Your task to perform on an android device: turn pop-ups off in chrome Image 0: 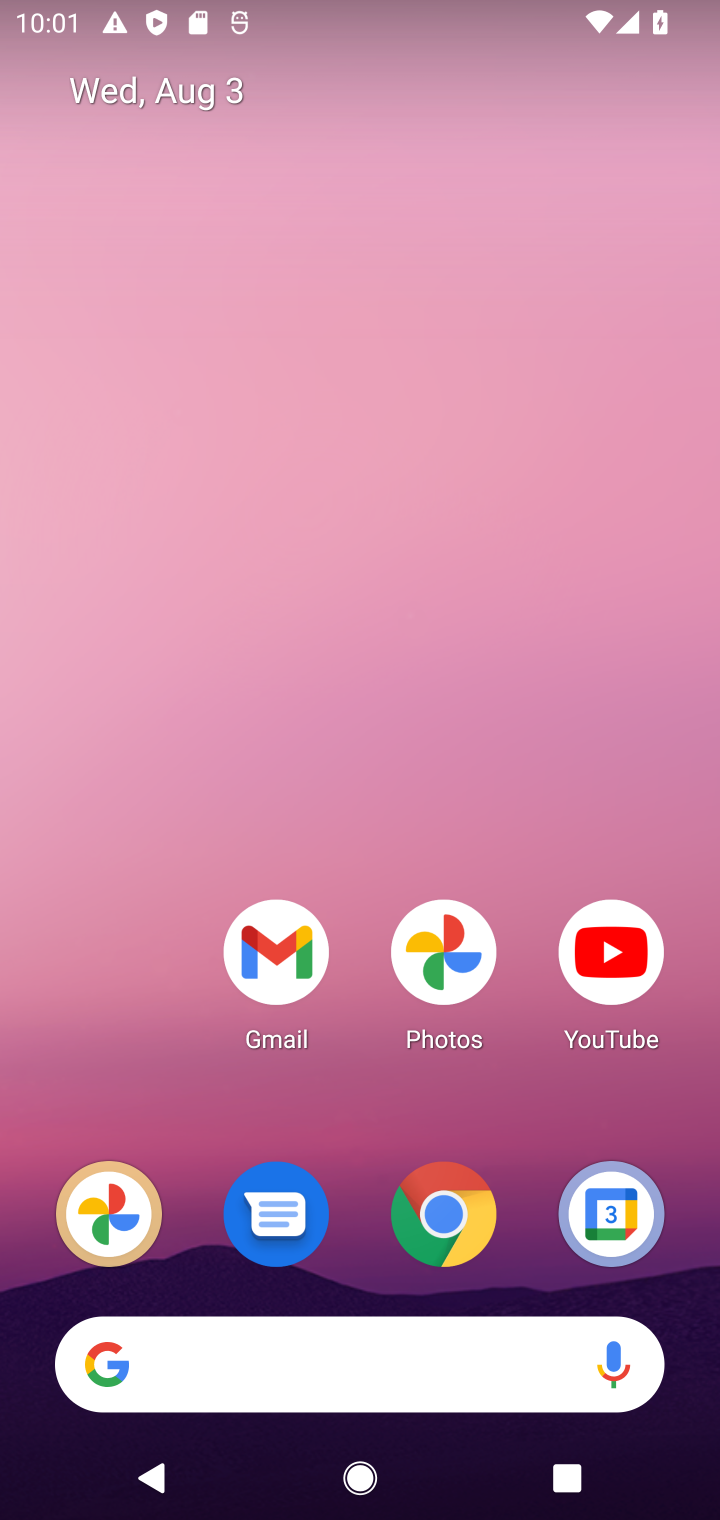
Step 0: press home button
Your task to perform on an android device: turn pop-ups off in chrome Image 1: 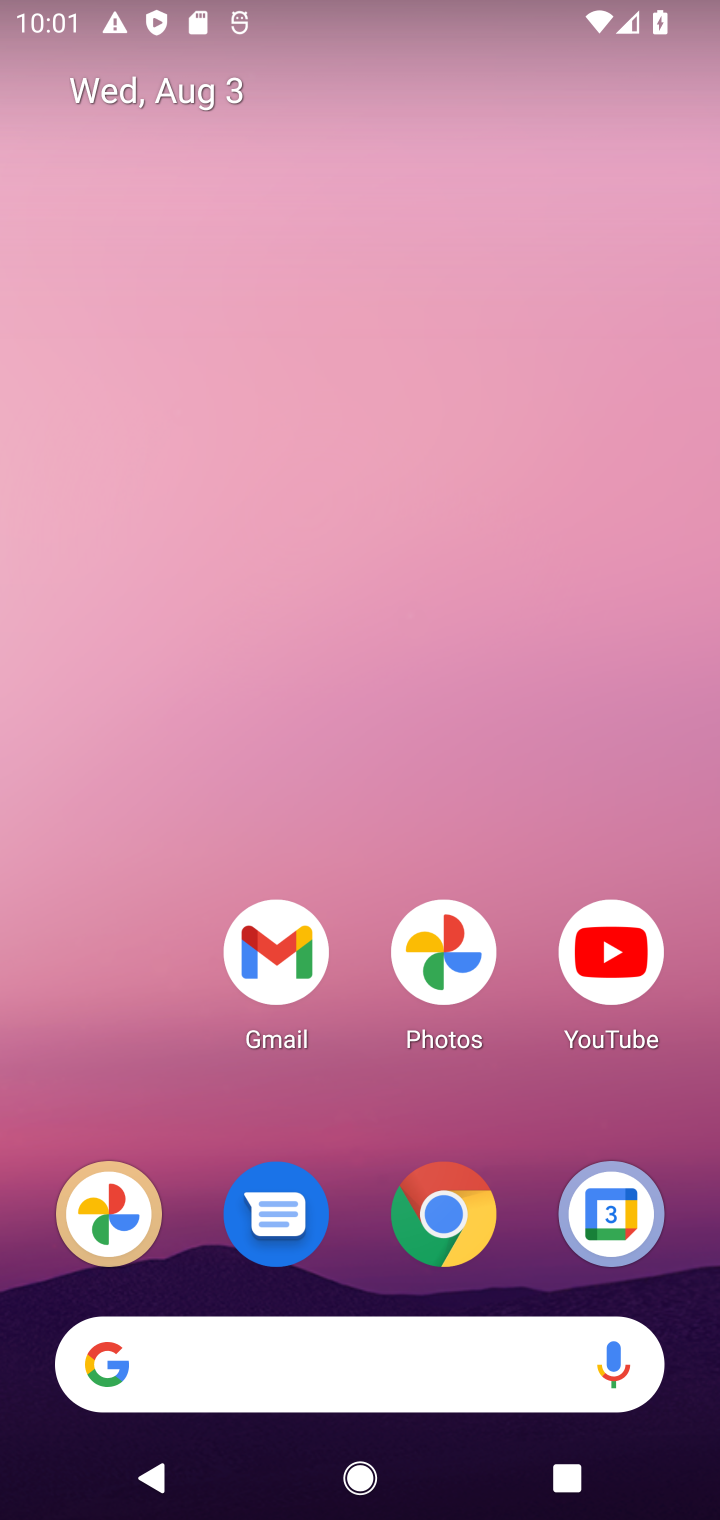
Step 1: drag from (541, 1076) to (558, 414)
Your task to perform on an android device: turn pop-ups off in chrome Image 2: 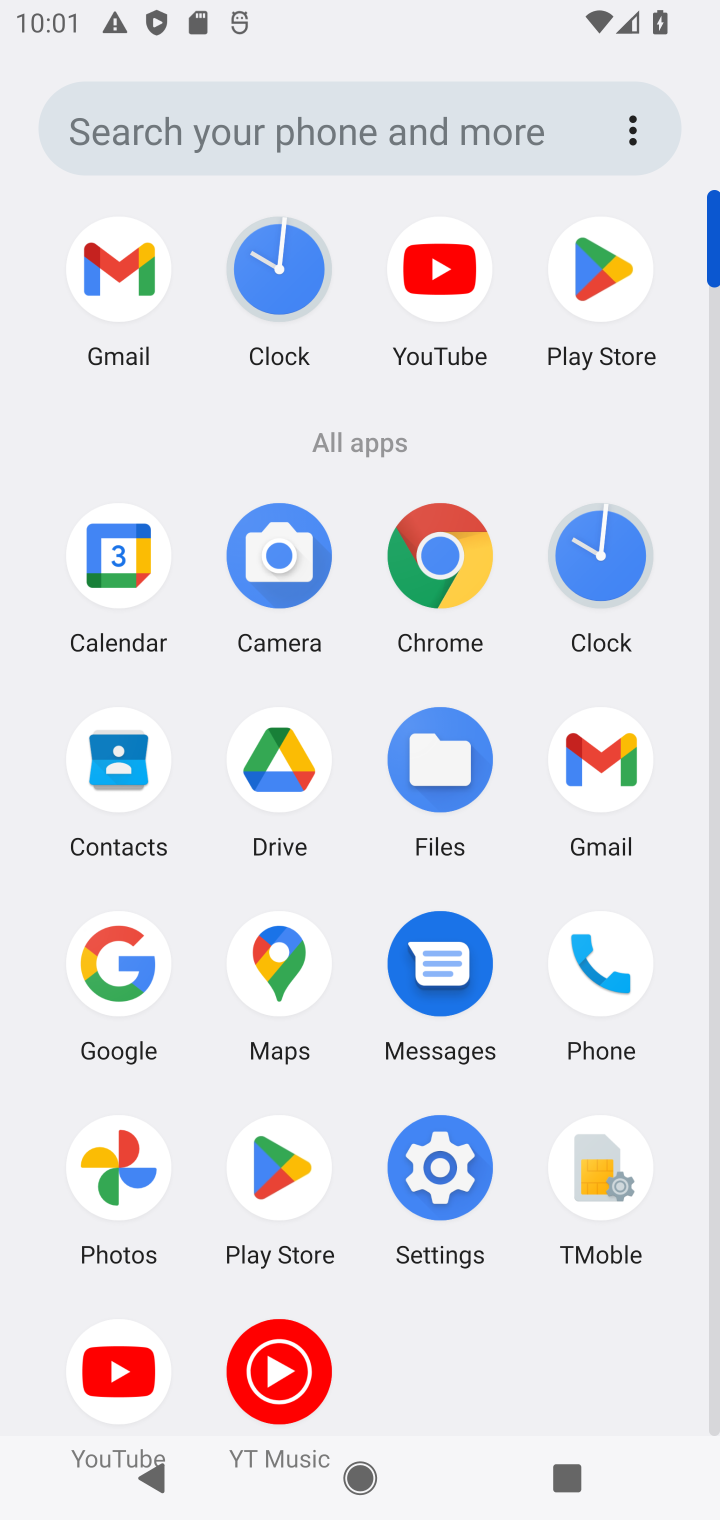
Step 2: drag from (465, 1342) to (469, 923)
Your task to perform on an android device: turn pop-ups off in chrome Image 3: 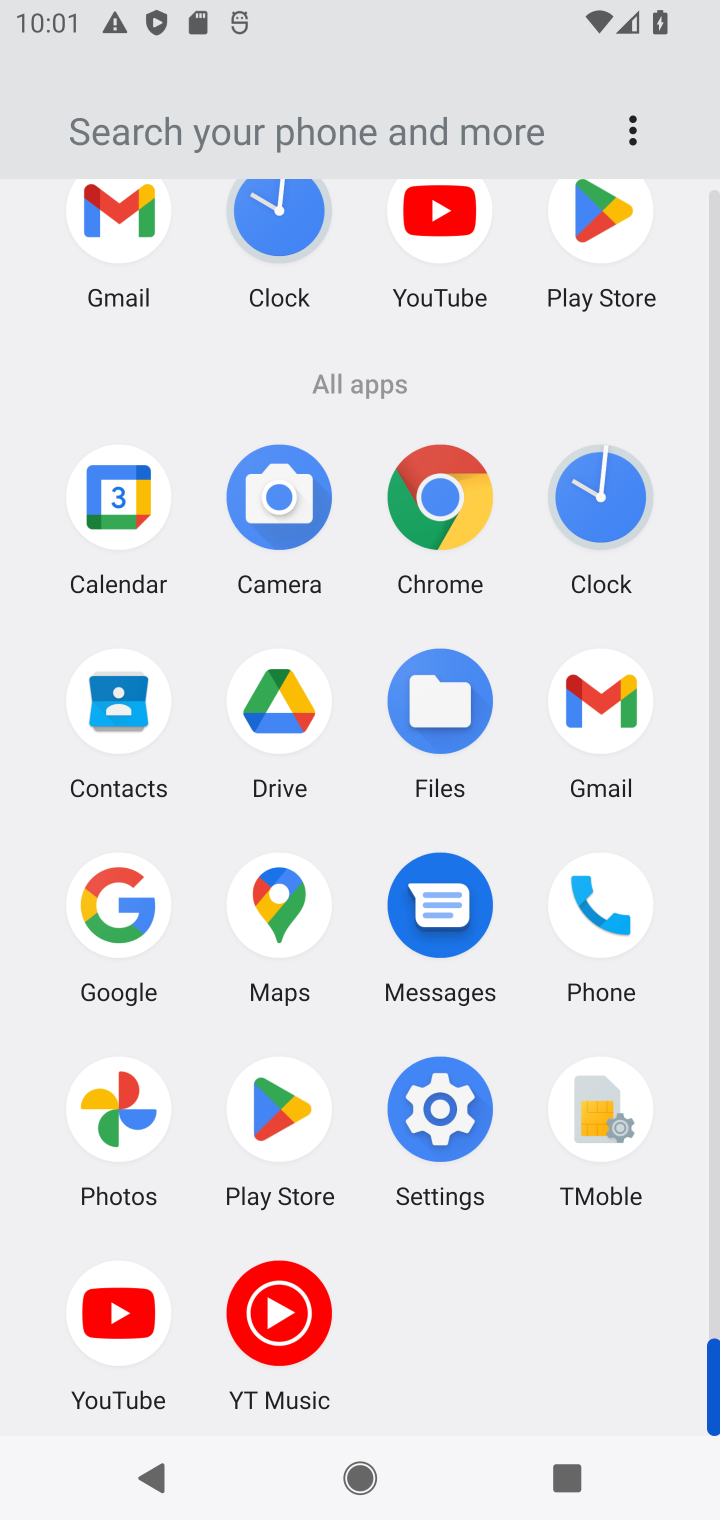
Step 3: click (403, 499)
Your task to perform on an android device: turn pop-ups off in chrome Image 4: 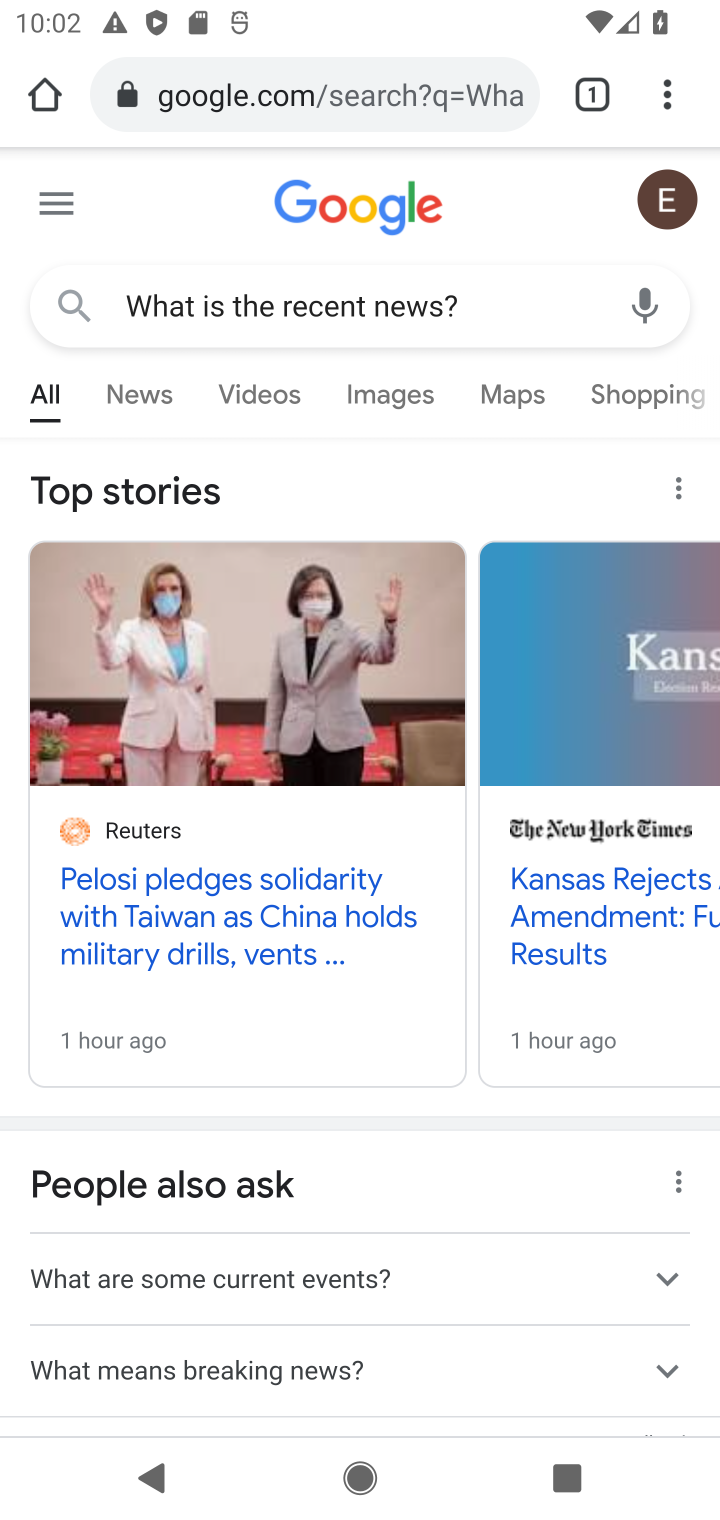
Step 4: click (684, 76)
Your task to perform on an android device: turn pop-ups off in chrome Image 5: 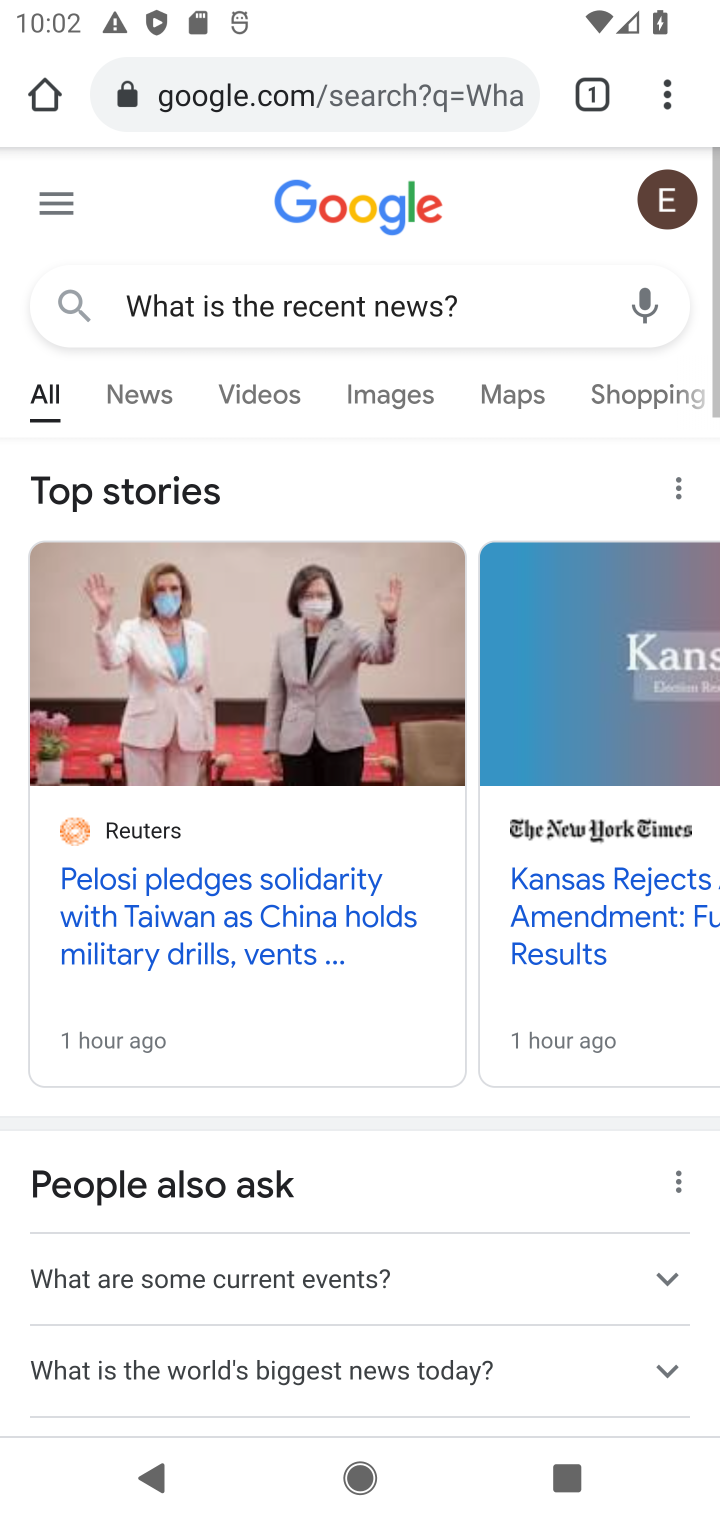
Step 5: click (684, 76)
Your task to perform on an android device: turn pop-ups off in chrome Image 6: 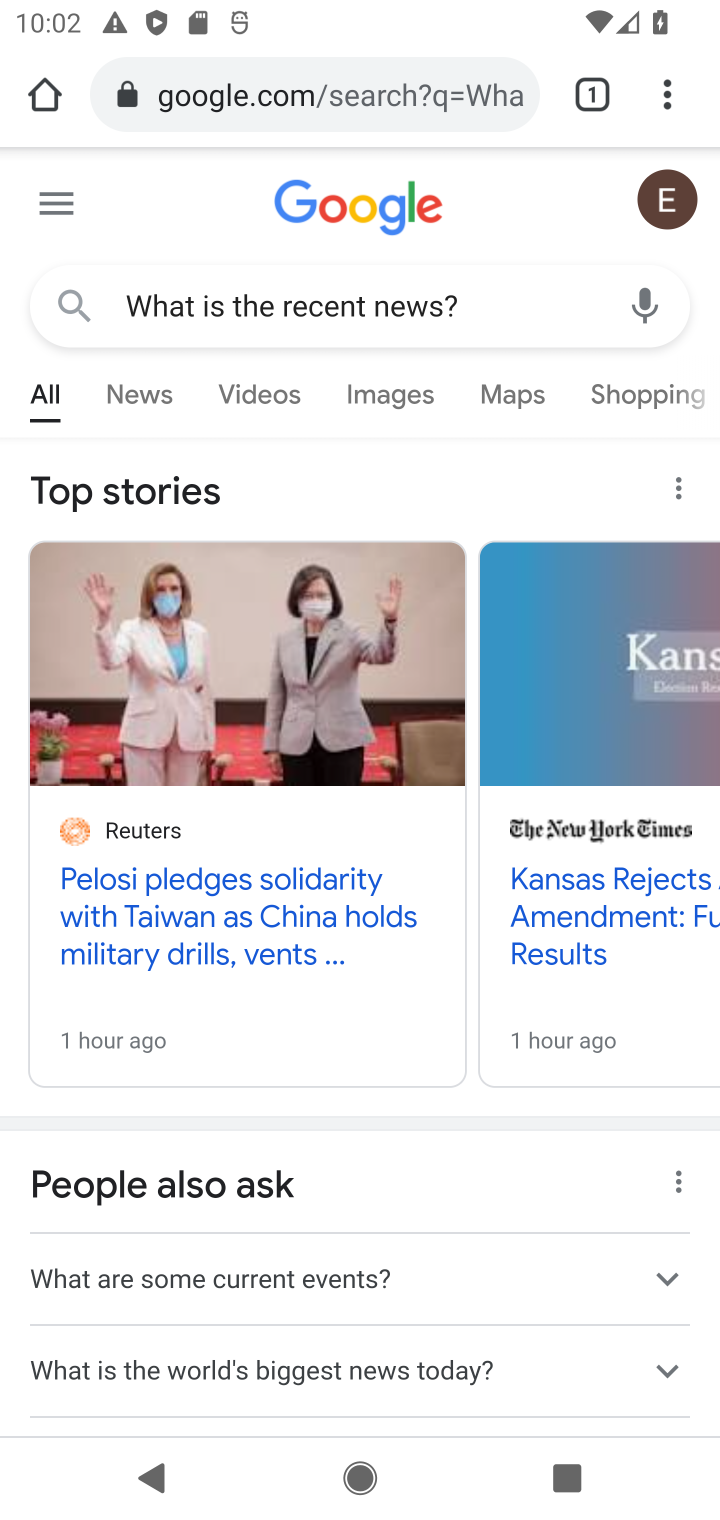
Step 6: drag from (675, 100) to (407, 1222)
Your task to perform on an android device: turn pop-ups off in chrome Image 7: 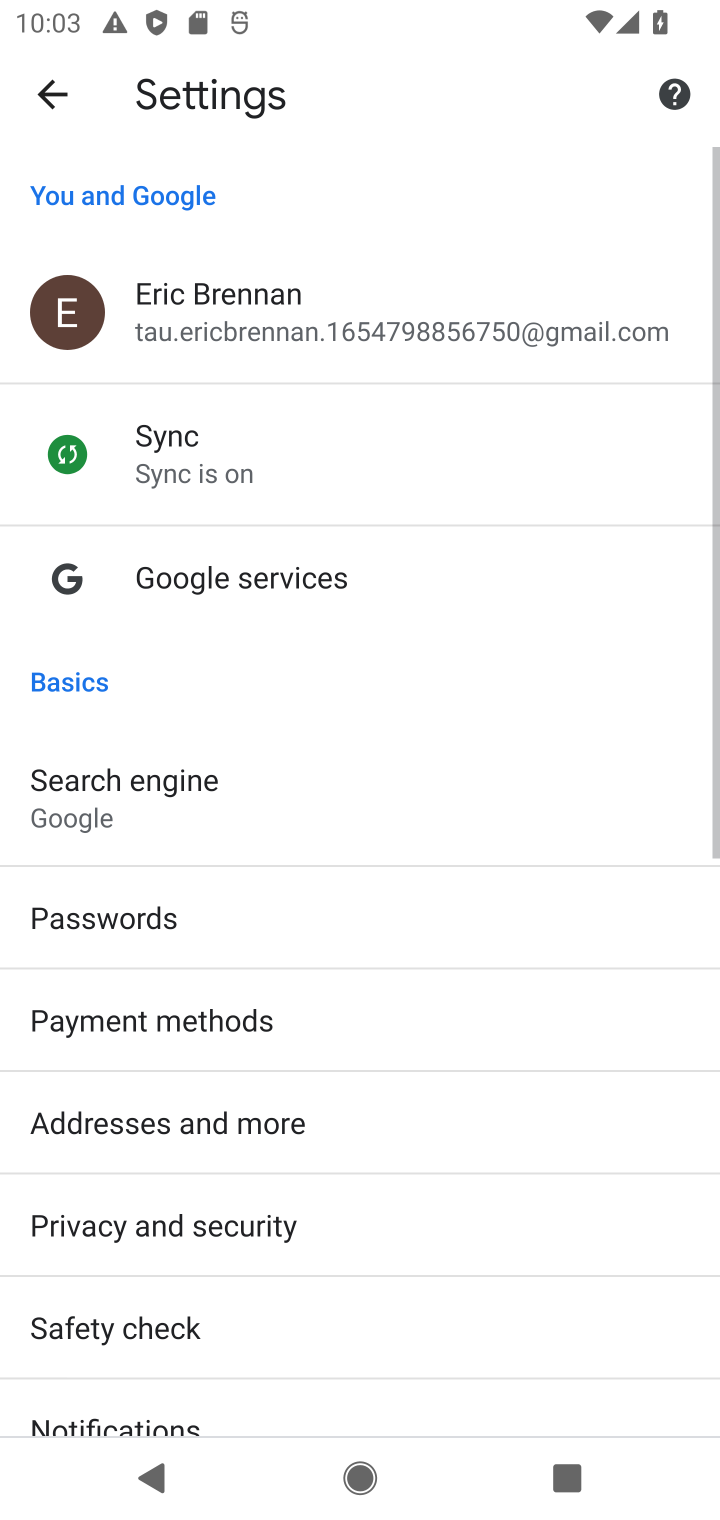
Step 7: drag from (178, 1259) to (214, 326)
Your task to perform on an android device: turn pop-ups off in chrome Image 8: 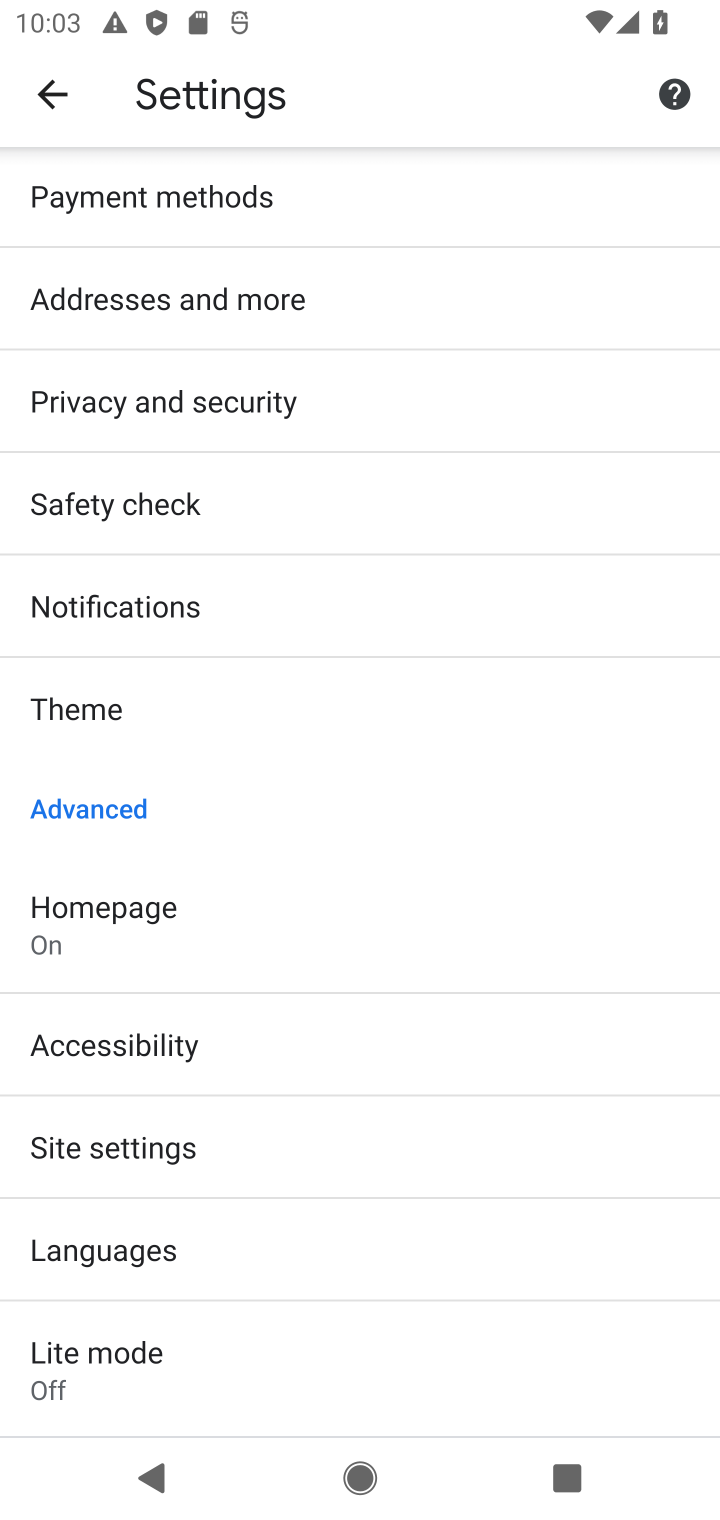
Step 8: click (127, 1171)
Your task to perform on an android device: turn pop-ups off in chrome Image 9: 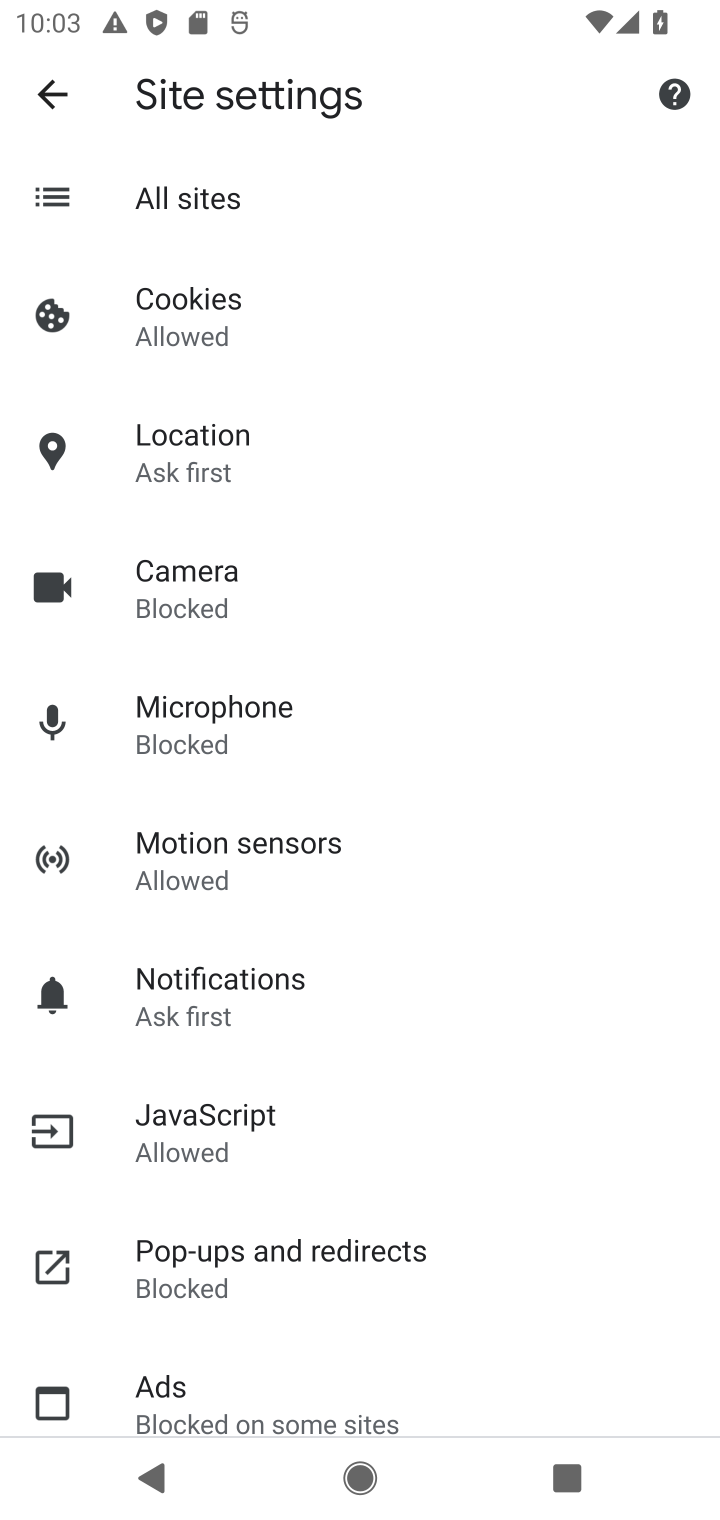
Step 9: click (184, 1253)
Your task to perform on an android device: turn pop-ups off in chrome Image 10: 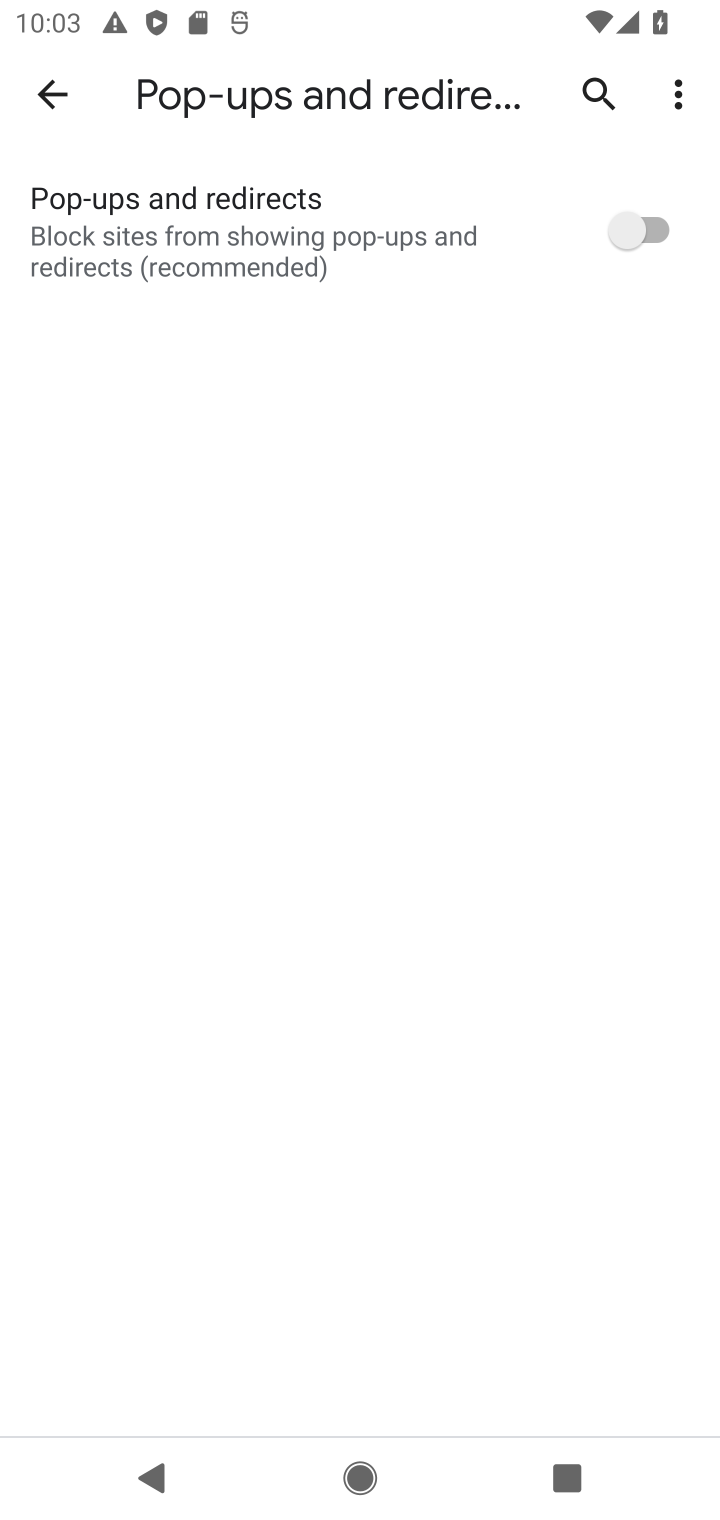
Step 10: click (263, 205)
Your task to perform on an android device: turn pop-ups off in chrome Image 11: 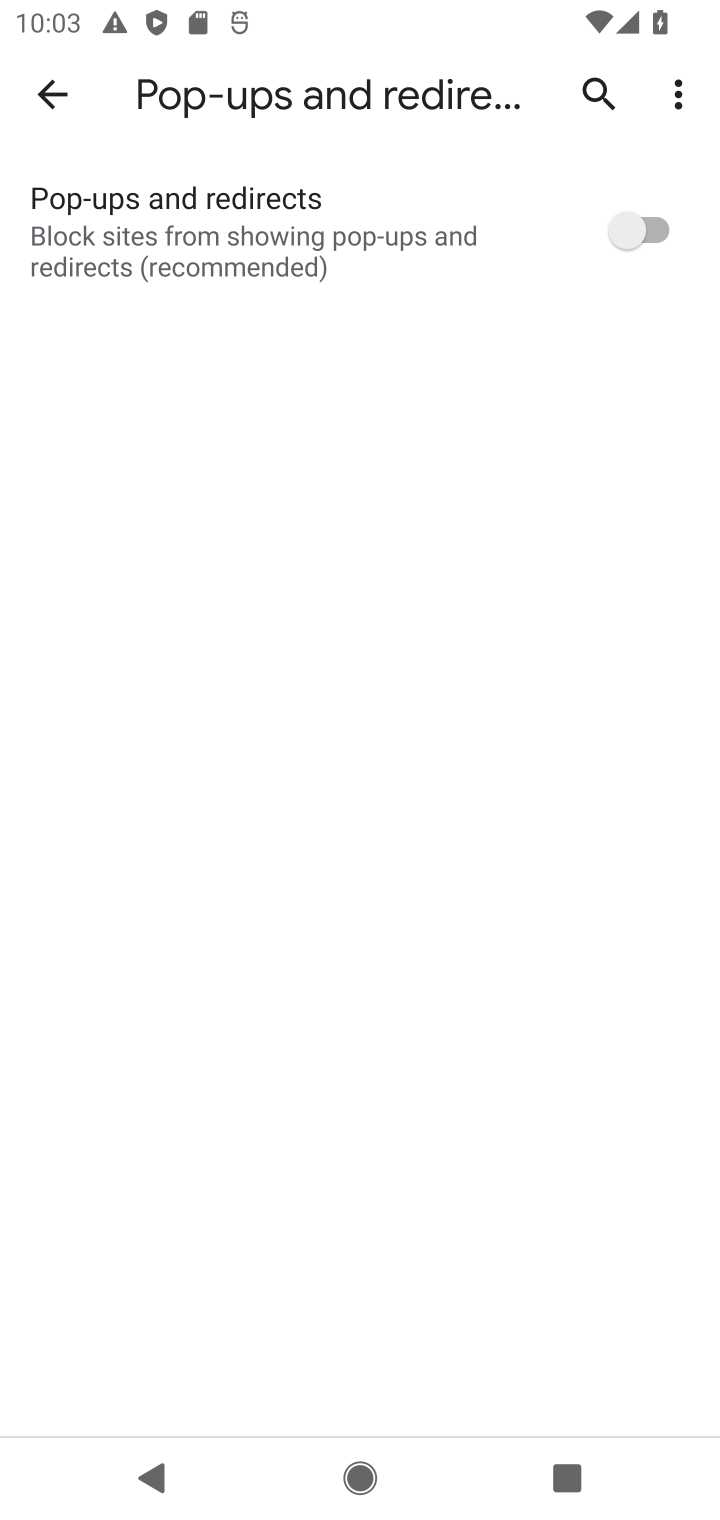
Step 11: click (263, 205)
Your task to perform on an android device: turn pop-ups off in chrome Image 12: 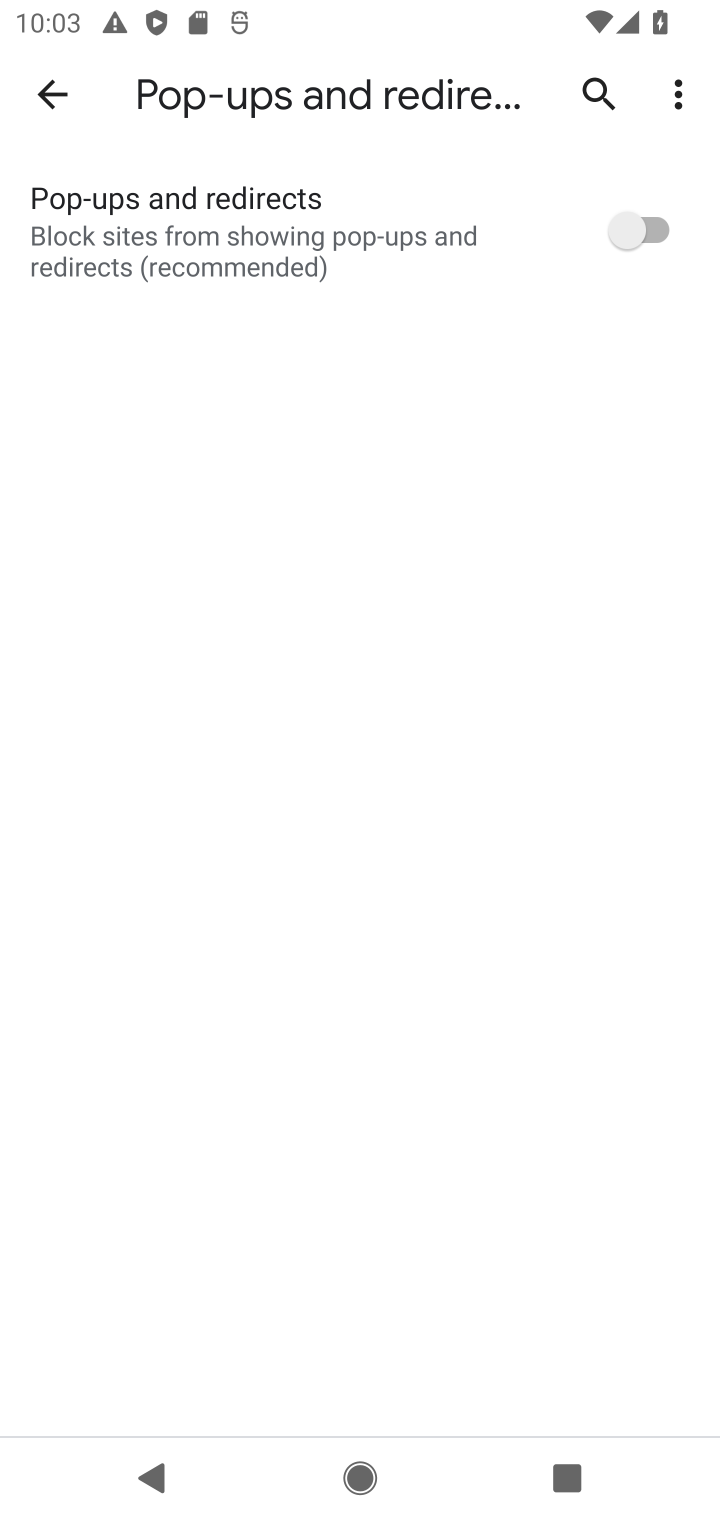
Step 12: task complete